Your task to perform on an android device: Show me recent news Image 0: 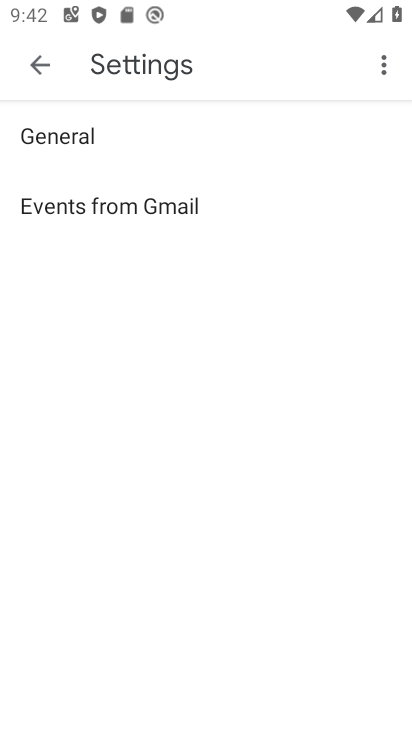
Step 0: press home button
Your task to perform on an android device: Show me recent news Image 1: 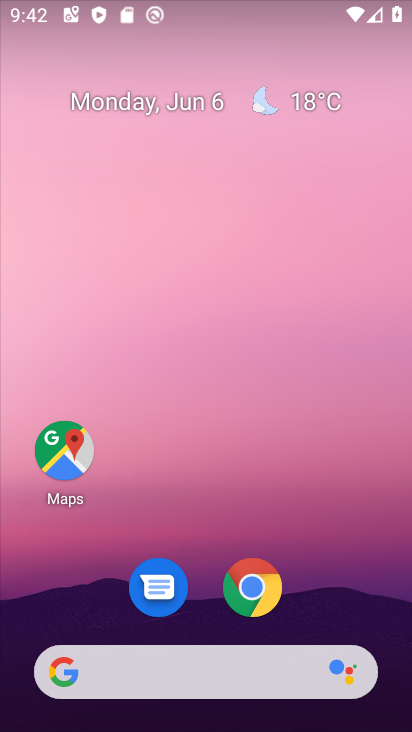
Step 1: click (220, 673)
Your task to perform on an android device: Show me recent news Image 2: 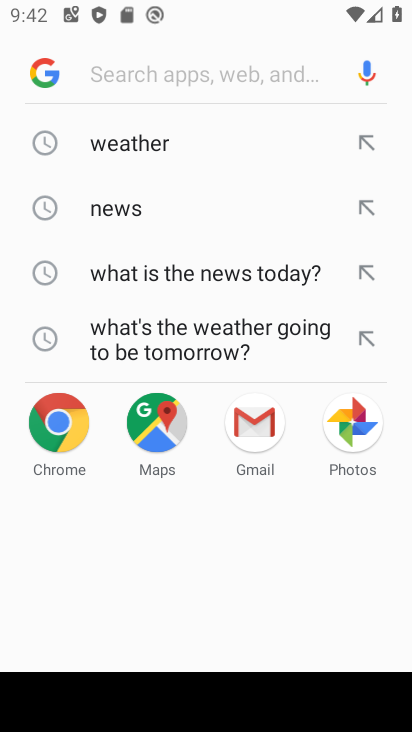
Step 2: type "recent news"
Your task to perform on an android device: Show me recent news Image 3: 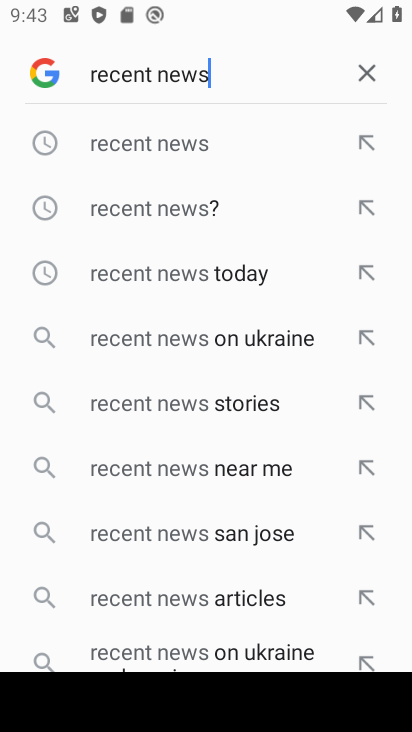
Step 3: click (278, 139)
Your task to perform on an android device: Show me recent news Image 4: 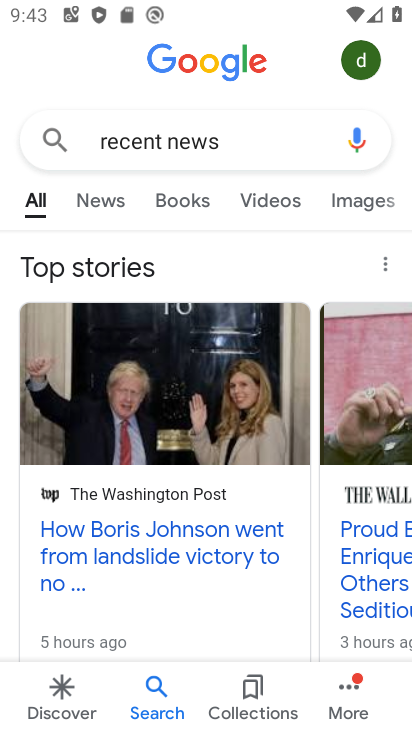
Step 4: task complete